Your task to perform on an android device: Find coffee shops on Maps Image 0: 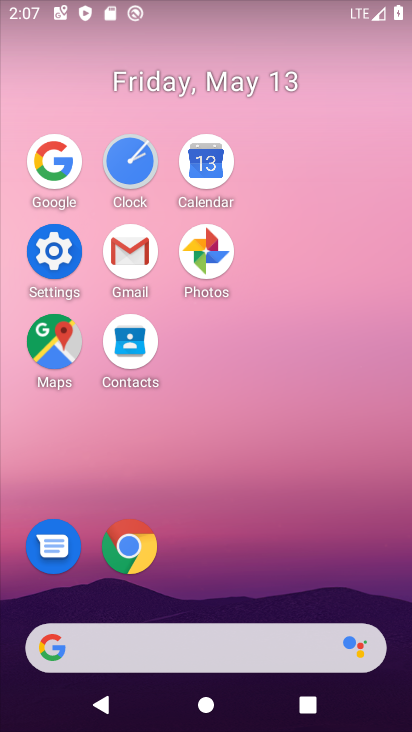
Step 0: click (62, 345)
Your task to perform on an android device: Find coffee shops on Maps Image 1: 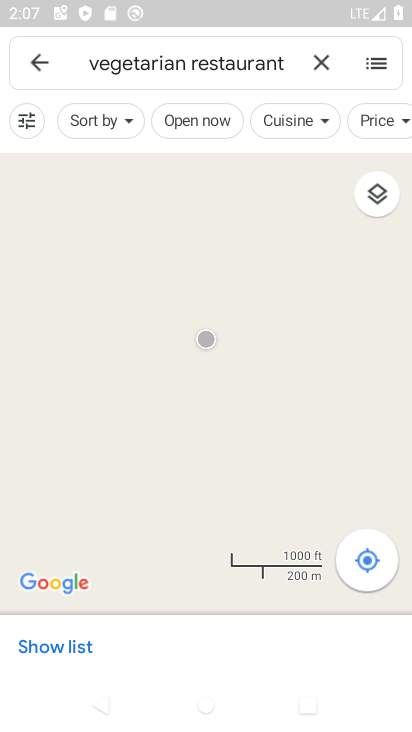
Step 1: click (312, 65)
Your task to perform on an android device: Find coffee shops on Maps Image 2: 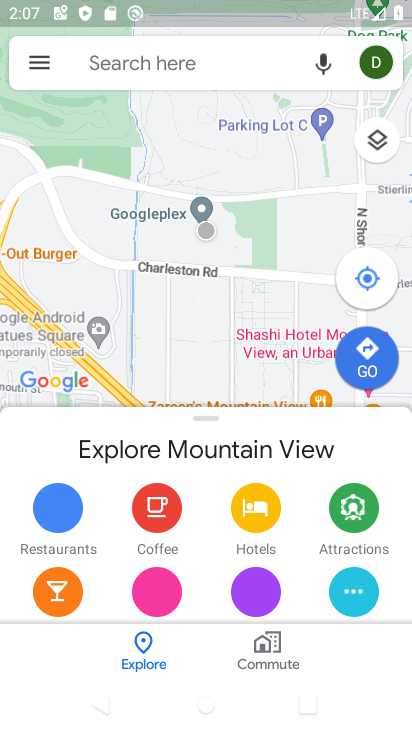
Step 2: click (218, 60)
Your task to perform on an android device: Find coffee shops on Maps Image 3: 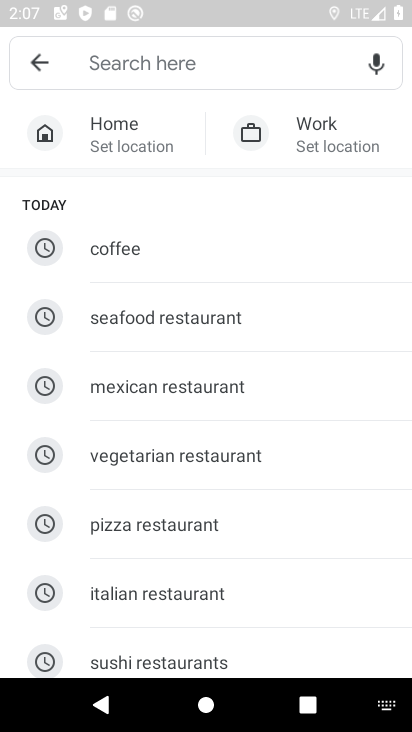
Step 3: type "coffee shops"
Your task to perform on an android device: Find coffee shops on Maps Image 4: 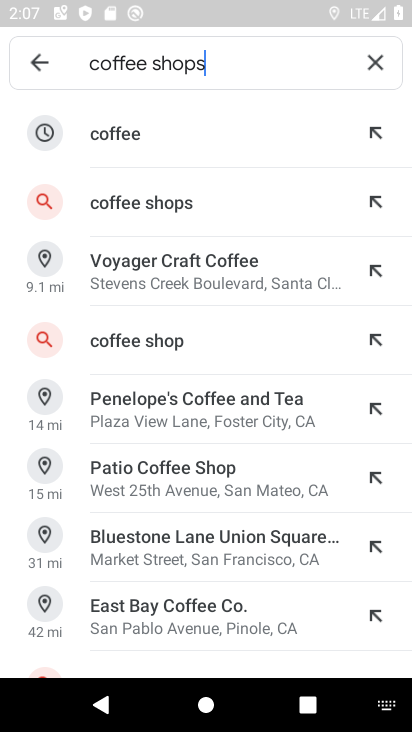
Step 4: click (168, 189)
Your task to perform on an android device: Find coffee shops on Maps Image 5: 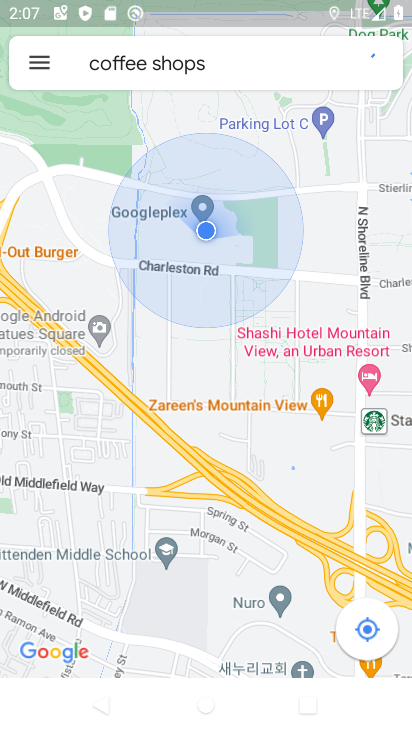
Step 5: task complete